Your task to perform on an android device: move a message to another label in the gmail app Image 0: 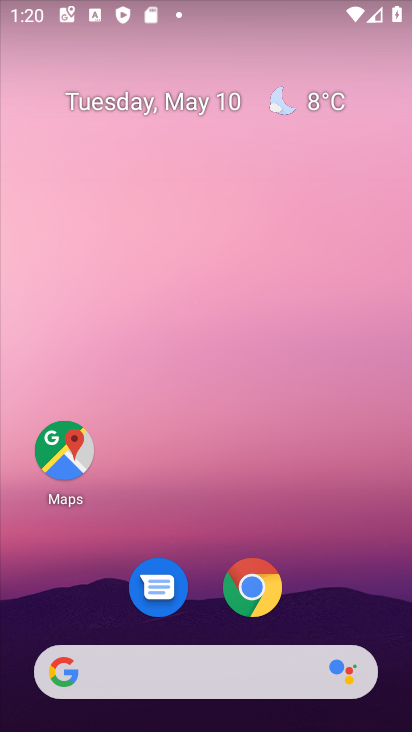
Step 0: drag from (394, 666) to (385, 402)
Your task to perform on an android device: move a message to another label in the gmail app Image 1: 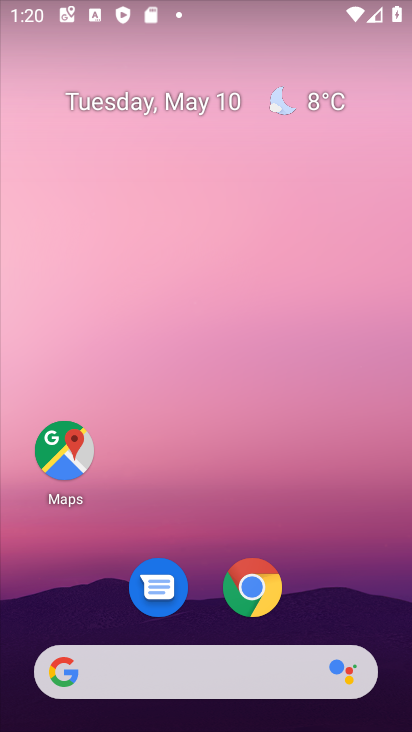
Step 1: drag from (398, 677) to (342, 273)
Your task to perform on an android device: move a message to another label in the gmail app Image 2: 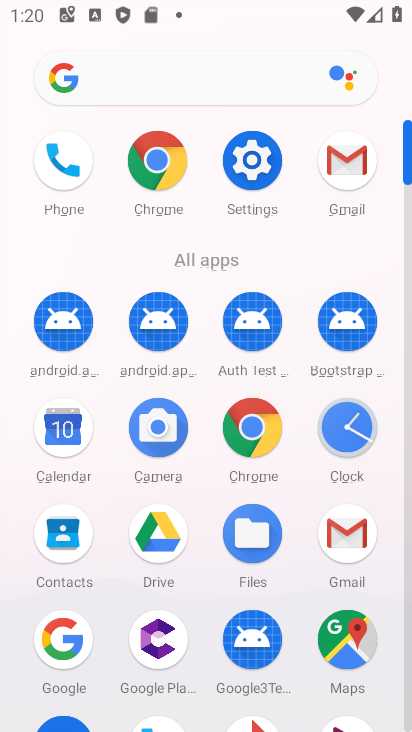
Step 2: click (356, 526)
Your task to perform on an android device: move a message to another label in the gmail app Image 3: 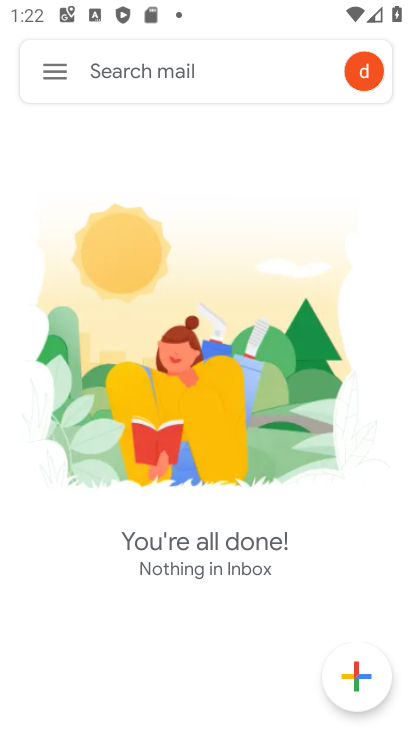
Step 3: task complete